Your task to perform on an android device: Go to notification settings Image 0: 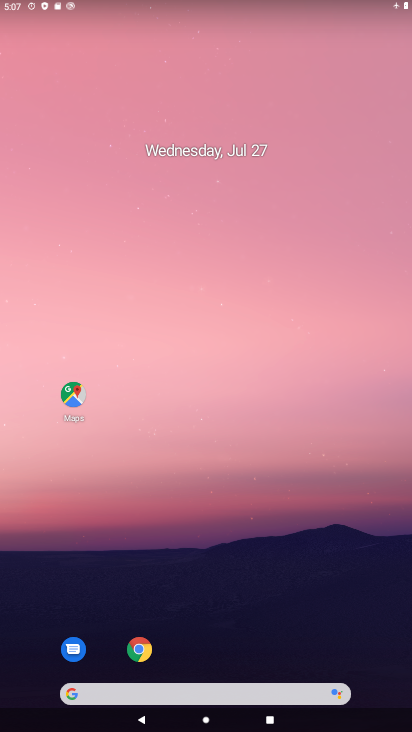
Step 0: drag from (182, 694) to (177, 101)
Your task to perform on an android device: Go to notification settings Image 1: 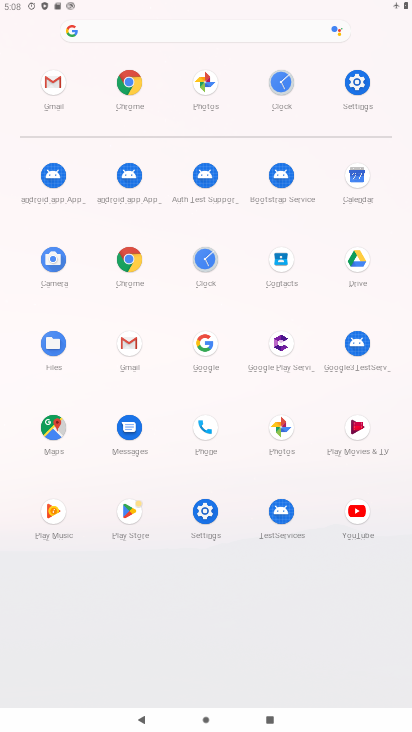
Step 1: click (359, 82)
Your task to perform on an android device: Go to notification settings Image 2: 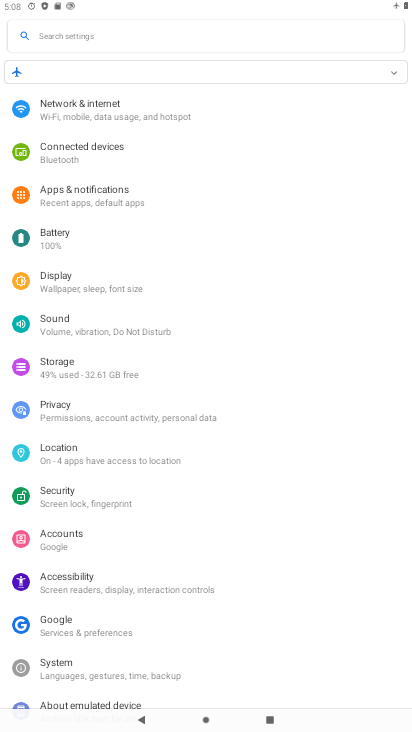
Step 2: click (97, 192)
Your task to perform on an android device: Go to notification settings Image 3: 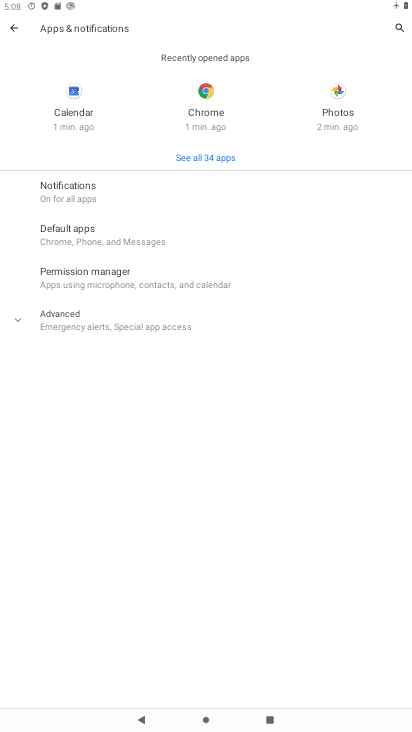
Step 3: click (68, 188)
Your task to perform on an android device: Go to notification settings Image 4: 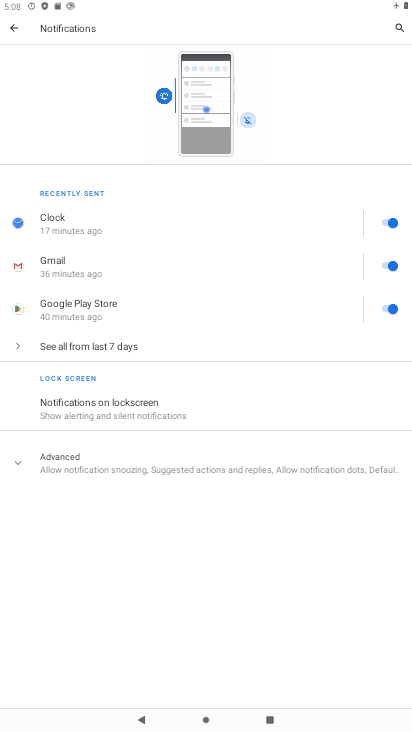
Step 4: task complete